Your task to perform on an android device: open app "Airtel Thanks" (install if not already installed) and go to login screen Image 0: 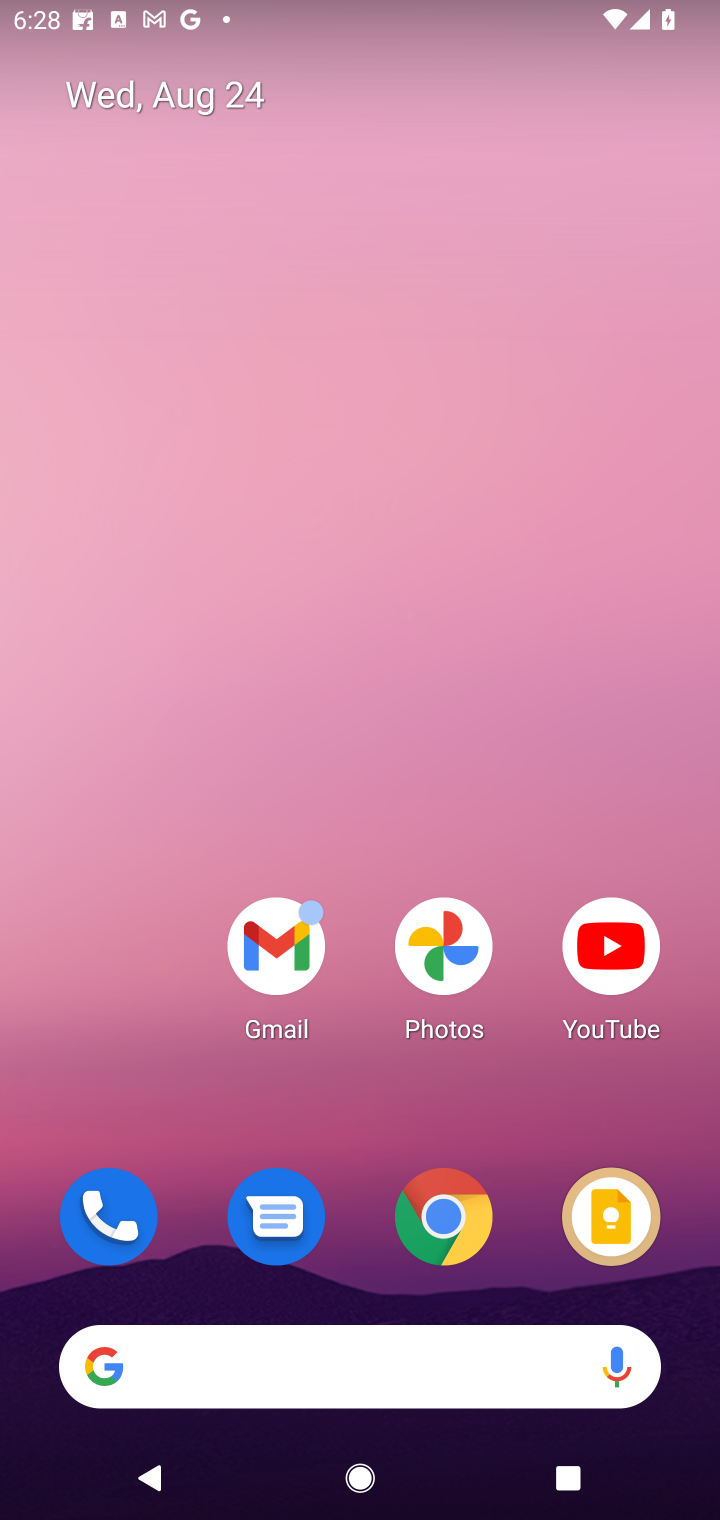
Step 0: drag from (400, 927) to (407, 439)
Your task to perform on an android device: open app "Airtel Thanks" (install if not already installed) and go to login screen Image 1: 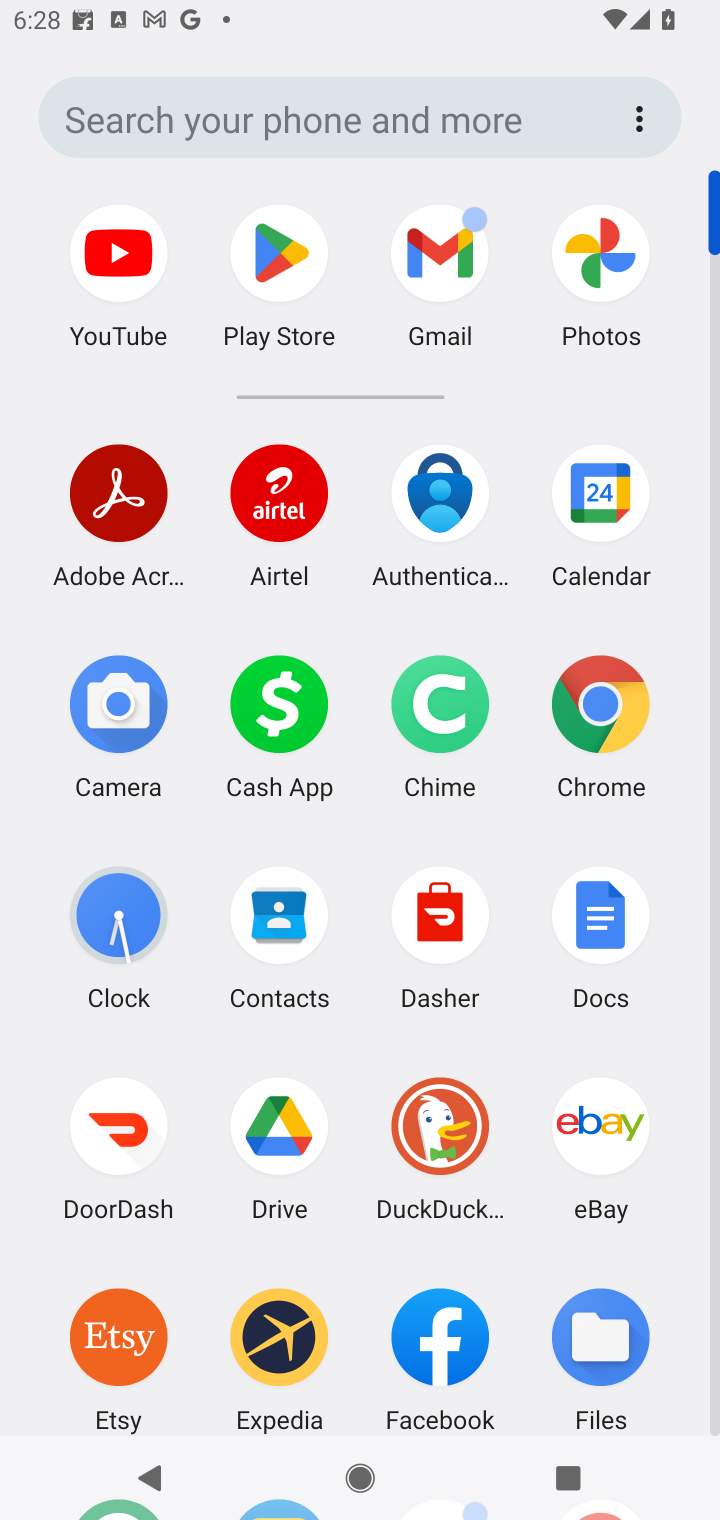
Step 1: click (263, 213)
Your task to perform on an android device: open app "Airtel Thanks" (install if not already installed) and go to login screen Image 2: 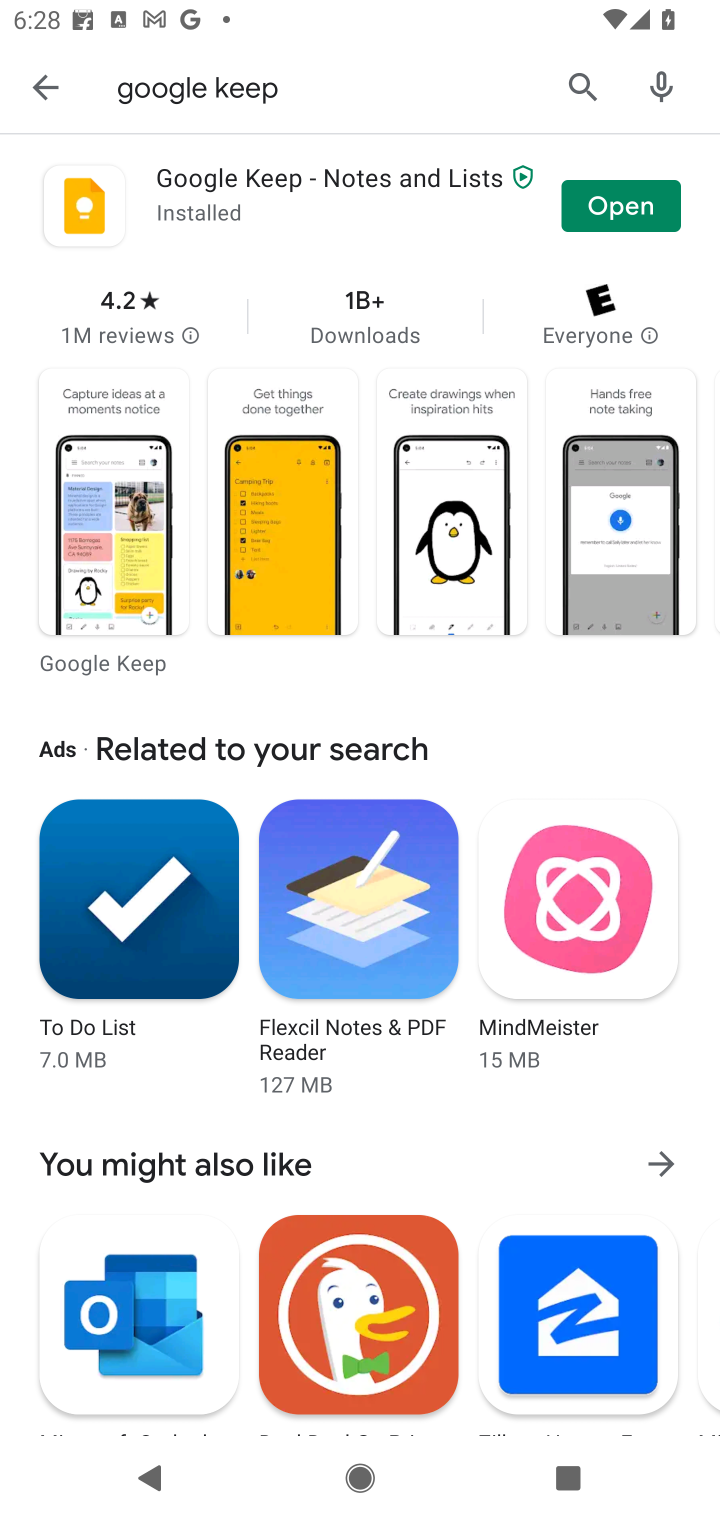
Step 2: click (564, 85)
Your task to perform on an android device: open app "Airtel Thanks" (install if not already installed) and go to login screen Image 3: 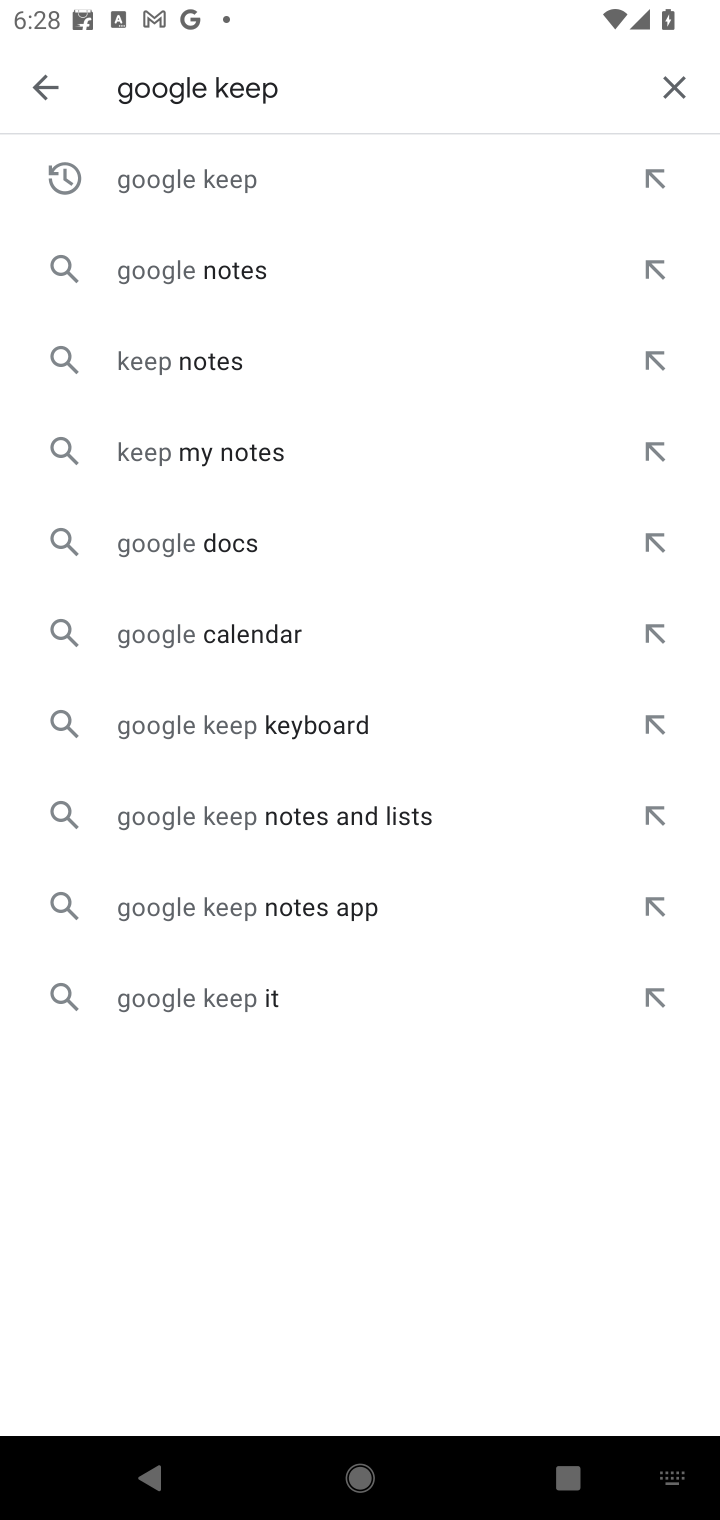
Step 3: type "Airtel Thanks"
Your task to perform on an android device: open app "Airtel Thanks" (install if not already installed) and go to login screen Image 4: 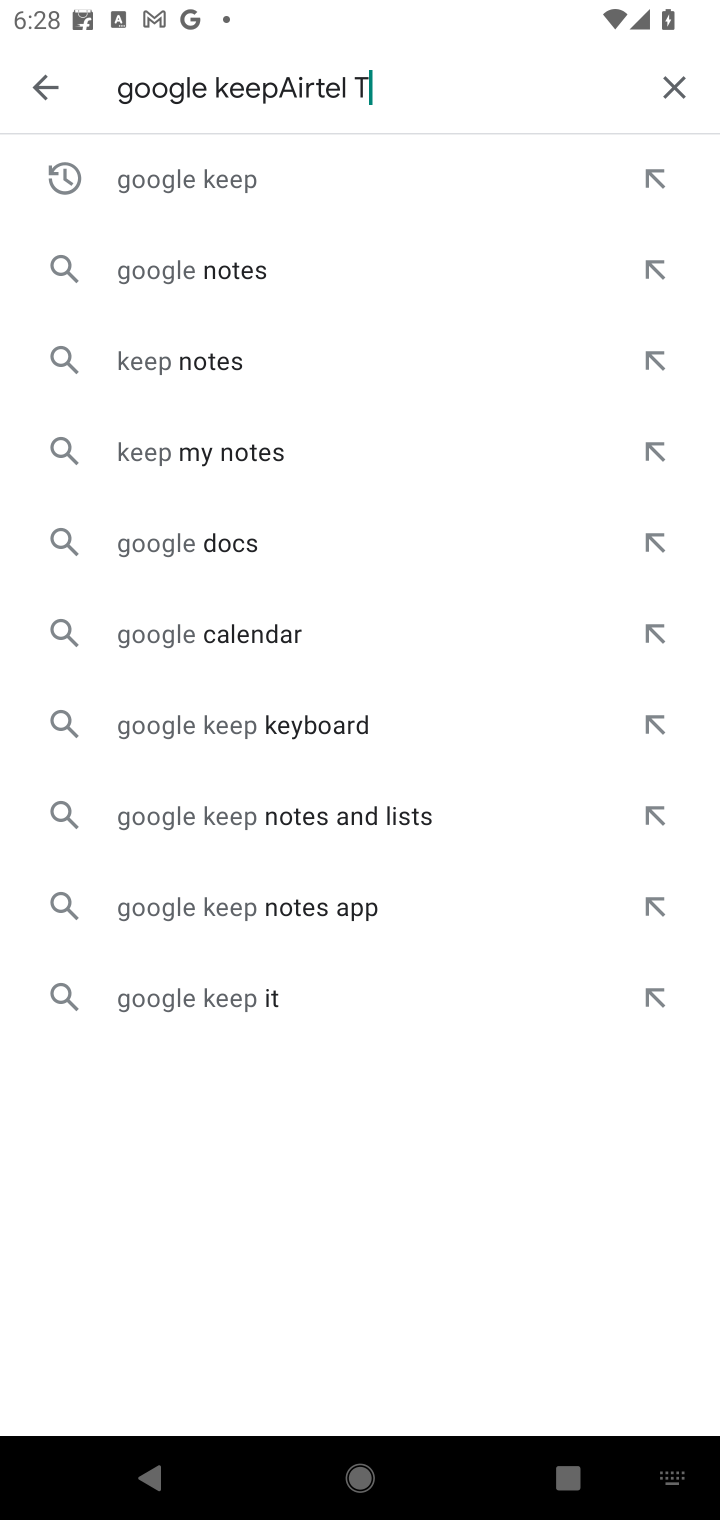
Step 4: type ""
Your task to perform on an android device: open app "Airtel Thanks" (install if not already installed) and go to login screen Image 5: 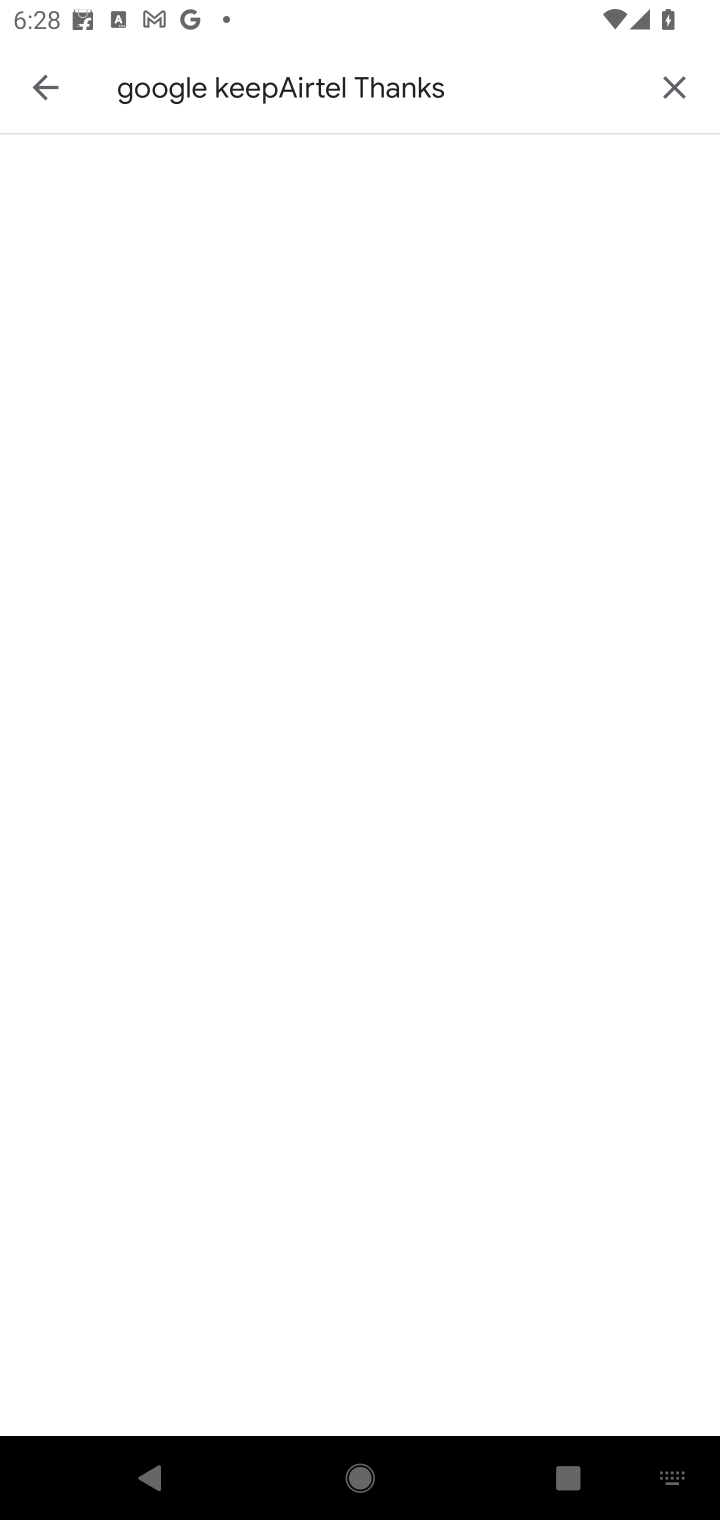
Step 5: task complete